Your task to perform on an android device: check storage Image 0: 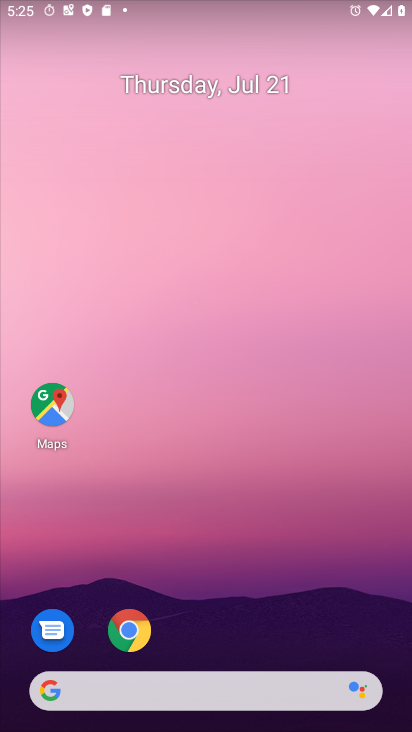
Step 0: press home button
Your task to perform on an android device: check storage Image 1: 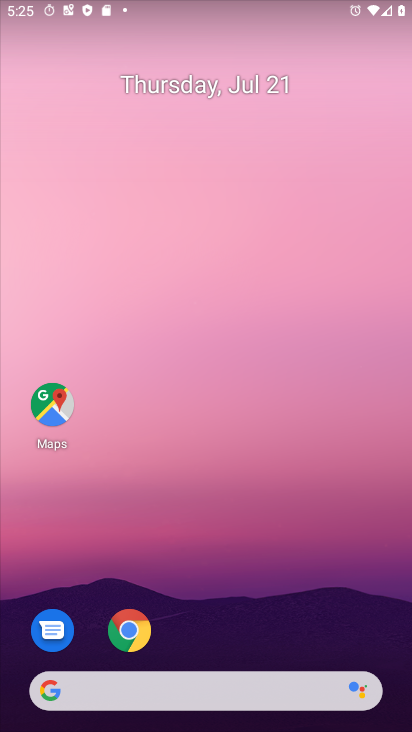
Step 1: drag from (184, 688) to (252, 40)
Your task to perform on an android device: check storage Image 2: 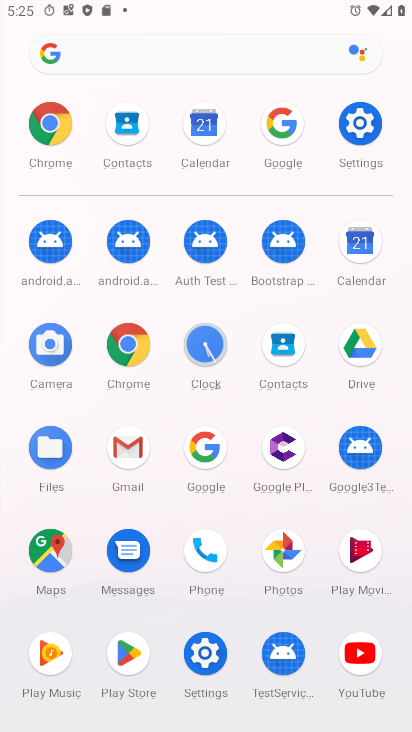
Step 2: click (207, 653)
Your task to perform on an android device: check storage Image 3: 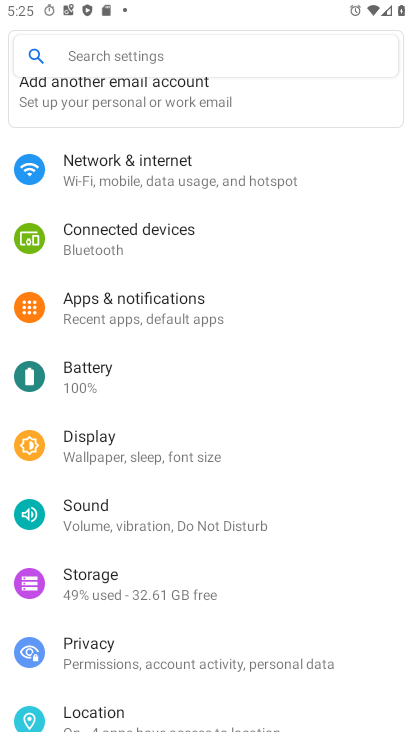
Step 3: click (97, 585)
Your task to perform on an android device: check storage Image 4: 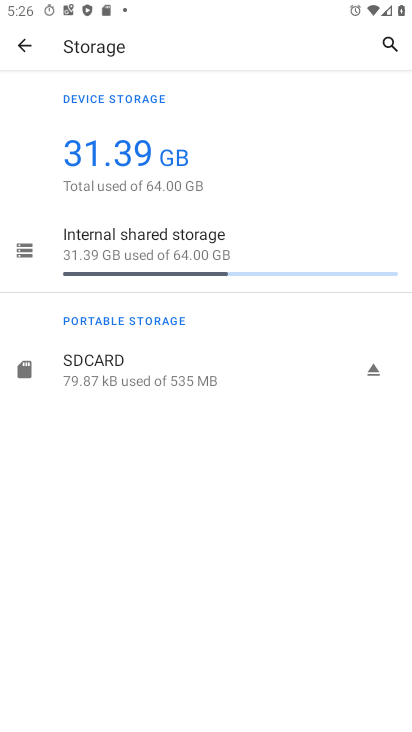
Step 4: task complete